Your task to perform on an android device: allow notifications from all sites in the chrome app Image 0: 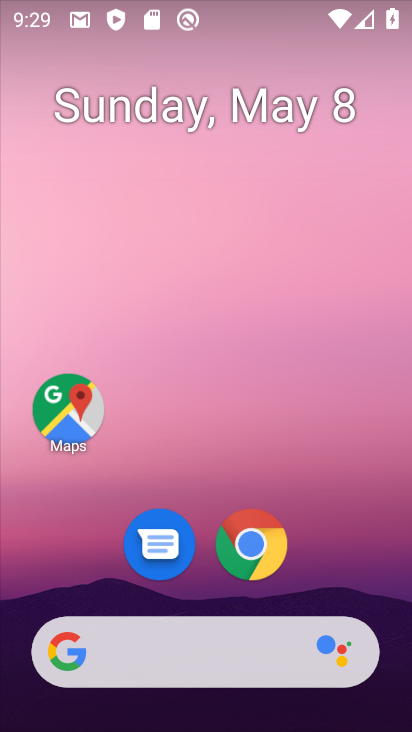
Step 0: press home button
Your task to perform on an android device: allow notifications from all sites in the chrome app Image 1: 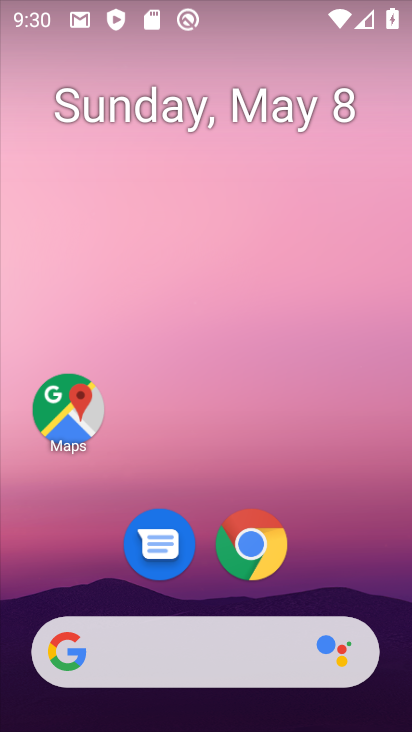
Step 1: press home button
Your task to perform on an android device: allow notifications from all sites in the chrome app Image 2: 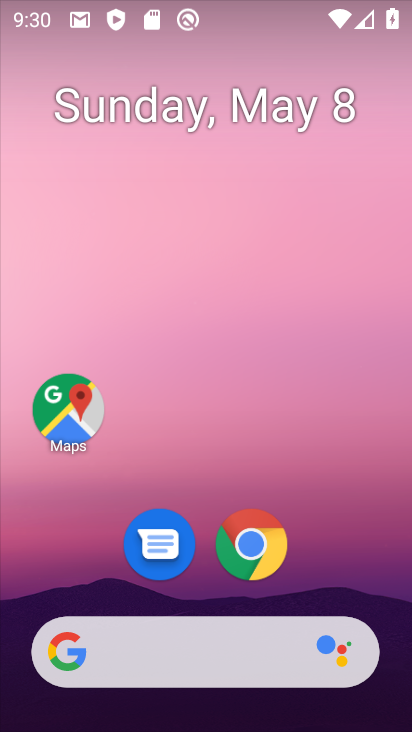
Step 2: drag from (334, 551) to (307, 166)
Your task to perform on an android device: allow notifications from all sites in the chrome app Image 3: 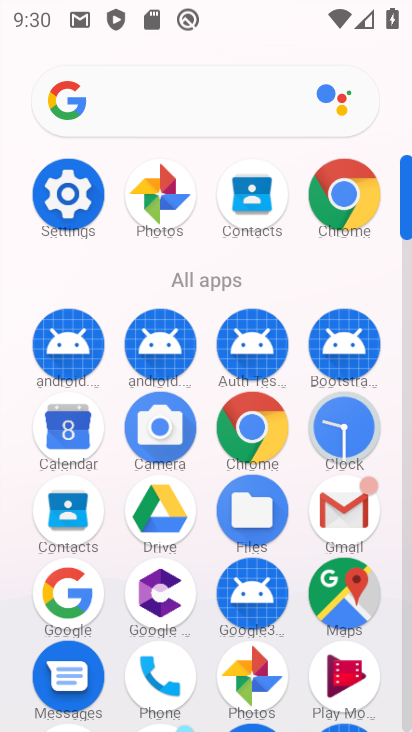
Step 3: click (345, 193)
Your task to perform on an android device: allow notifications from all sites in the chrome app Image 4: 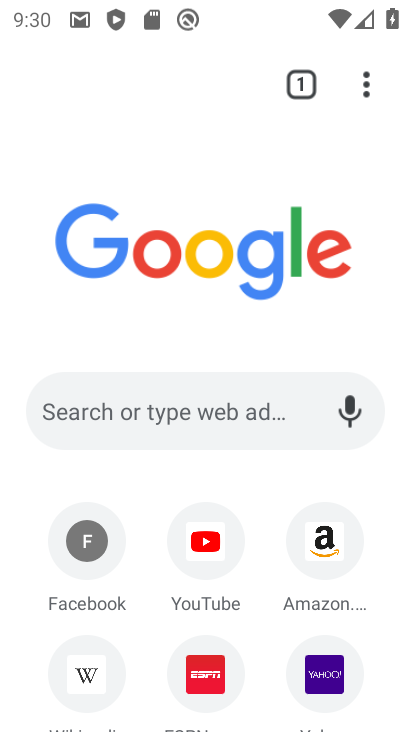
Step 4: click (366, 92)
Your task to perform on an android device: allow notifications from all sites in the chrome app Image 5: 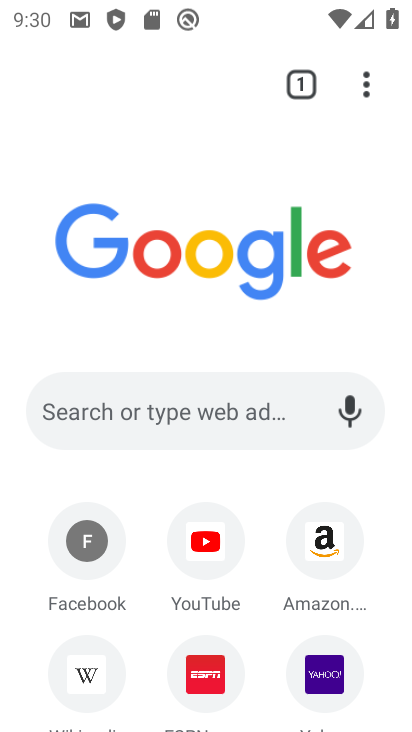
Step 5: click (371, 82)
Your task to perform on an android device: allow notifications from all sites in the chrome app Image 6: 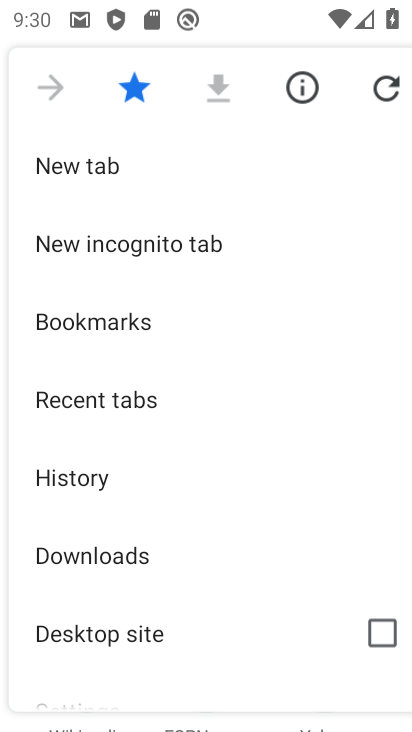
Step 6: drag from (213, 610) to (229, 280)
Your task to perform on an android device: allow notifications from all sites in the chrome app Image 7: 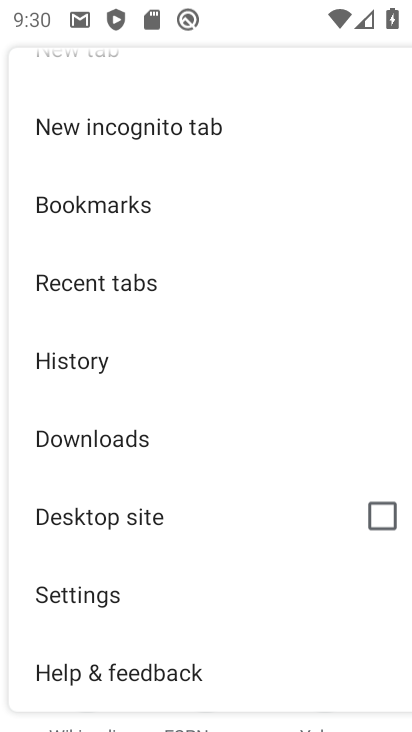
Step 7: click (177, 590)
Your task to perform on an android device: allow notifications from all sites in the chrome app Image 8: 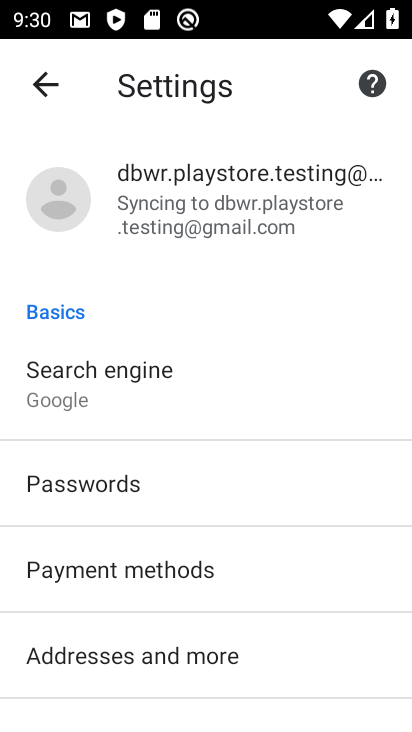
Step 8: drag from (202, 521) to (207, 241)
Your task to perform on an android device: allow notifications from all sites in the chrome app Image 9: 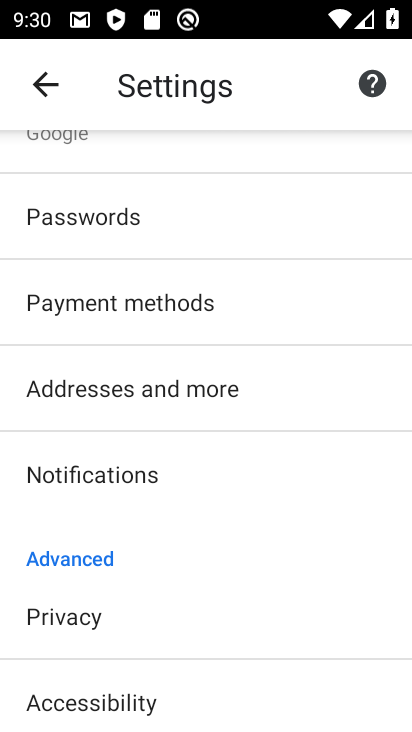
Step 9: click (214, 481)
Your task to perform on an android device: allow notifications from all sites in the chrome app Image 10: 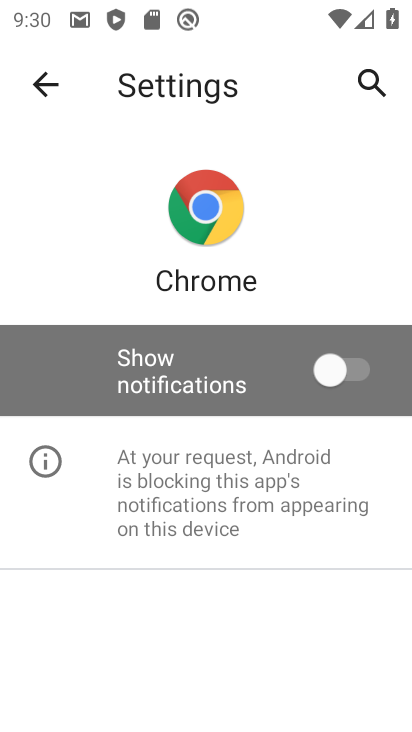
Step 10: click (321, 379)
Your task to perform on an android device: allow notifications from all sites in the chrome app Image 11: 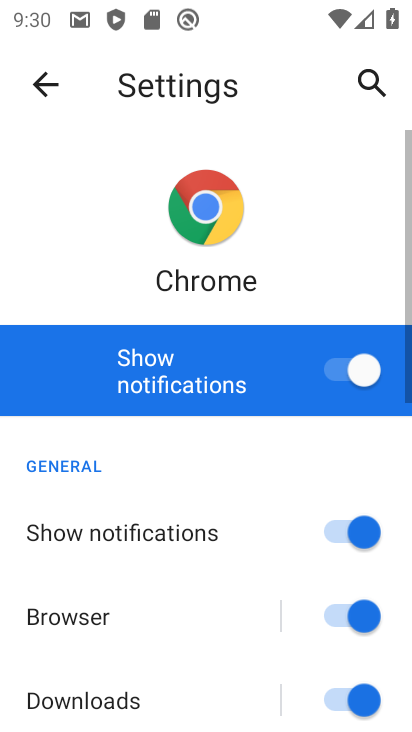
Step 11: task complete